Your task to perform on an android device: Do I have any events today? Image 0: 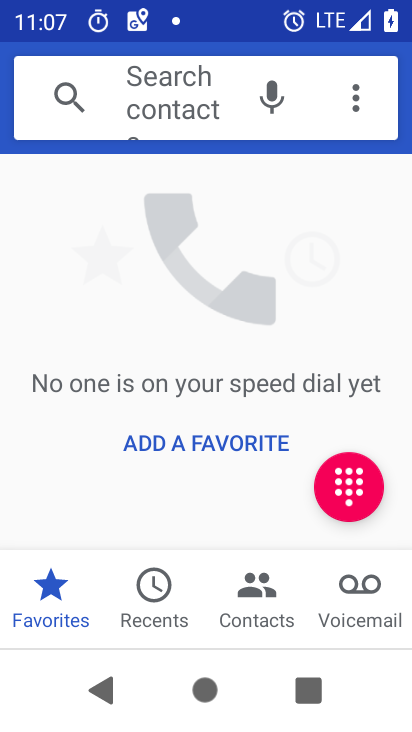
Step 0: press home button
Your task to perform on an android device: Do I have any events today? Image 1: 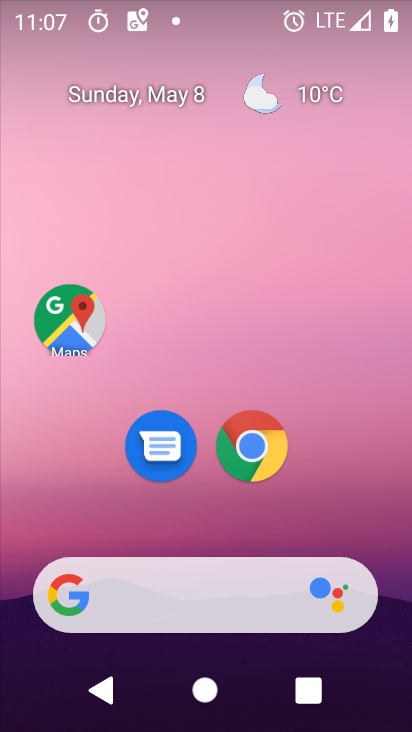
Step 1: drag from (358, 547) to (366, 11)
Your task to perform on an android device: Do I have any events today? Image 2: 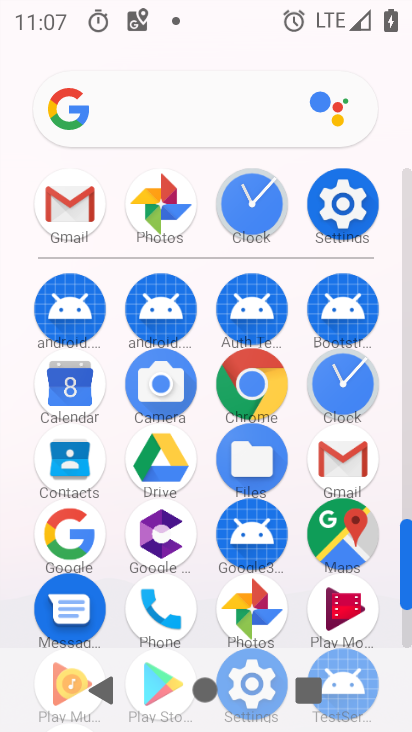
Step 2: click (62, 394)
Your task to perform on an android device: Do I have any events today? Image 3: 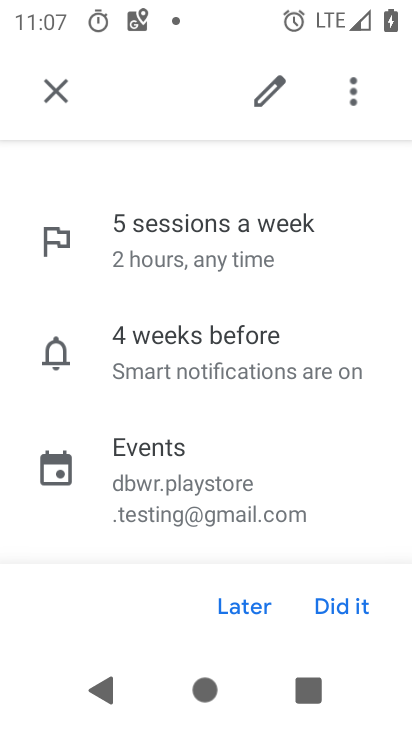
Step 3: click (47, 99)
Your task to perform on an android device: Do I have any events today? Image 4: 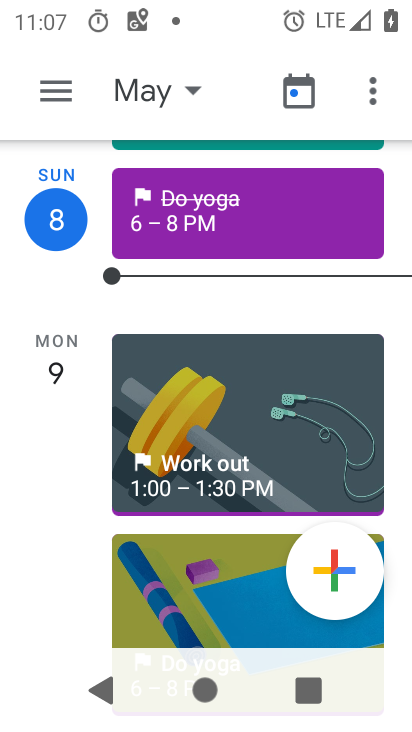
Step 4: drag from (181, 222) to (207, 387)
Your task to perform on an android device: Do I have any events today? Image 5: 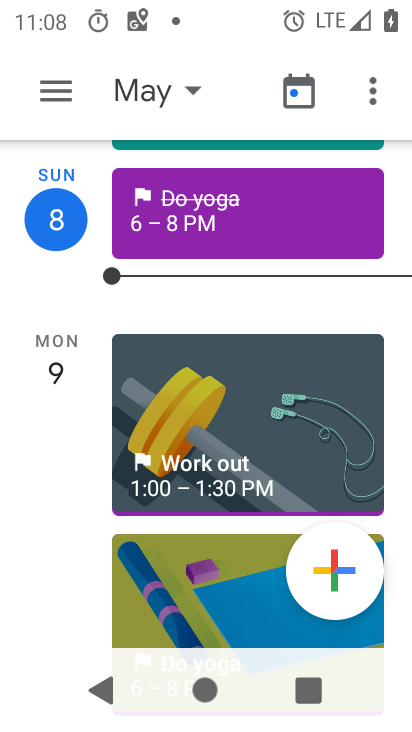
Step 5: click (222, 220)
Your task to perform on an android device: Do I have any events today? Image 6: 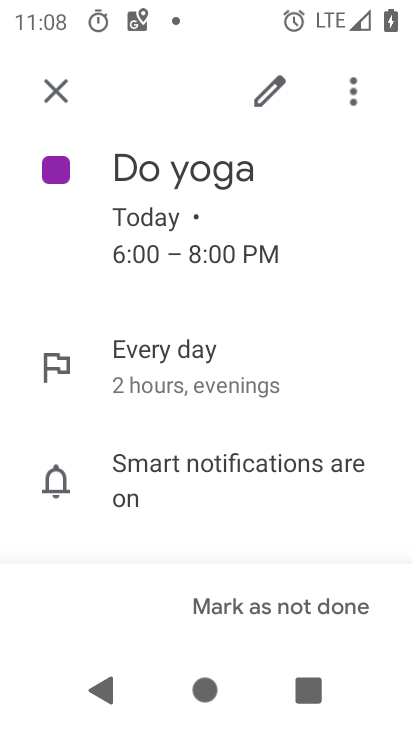
Step 6: task complete